Your task to perform on an android device: move a message to another label in the gmail app Image 0: 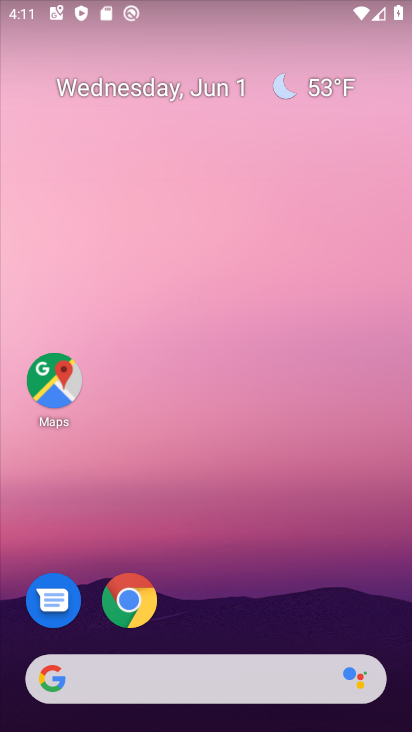
Step 0: drag from (345, 616) to (364, 152)
Your task to perform on an android device: move a message to another label in the gmail app Image 1: 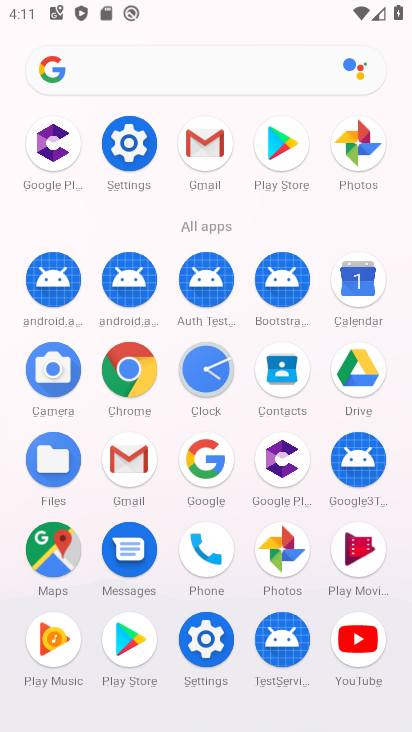
Step 1: click (126, 459)
Your task to perform on an android device: move a message to another label in the gmail app Image 2: 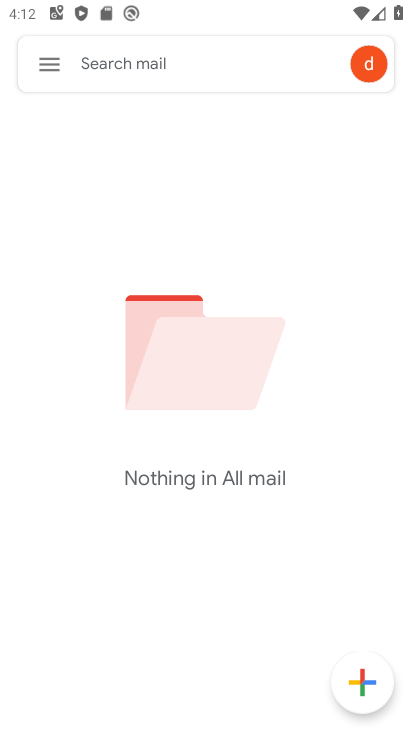
Step 2: click (42, 61)
Your task to perform on an android device: move a message to another label in the gmail app Image 3: 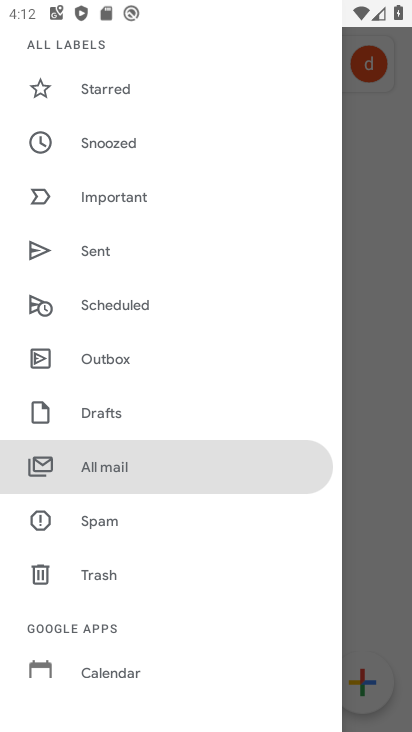
Step 3: click (161, 473)
Your task to perform on an android device: move a message to another label in the gmail app Image 4: 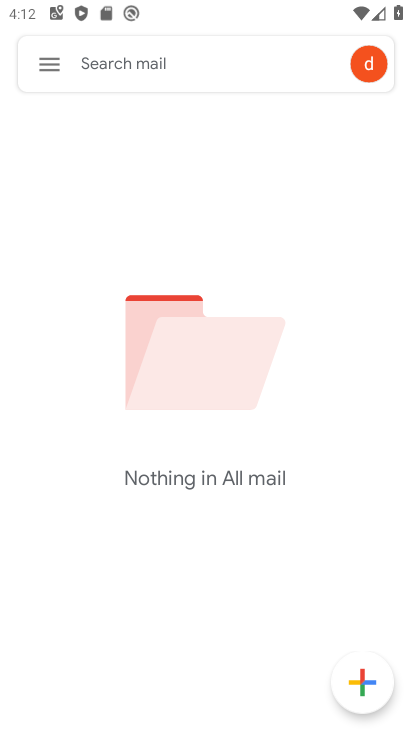
Step 4: task complete